Your task to perform on an android device: toggle notification dots Image 0: 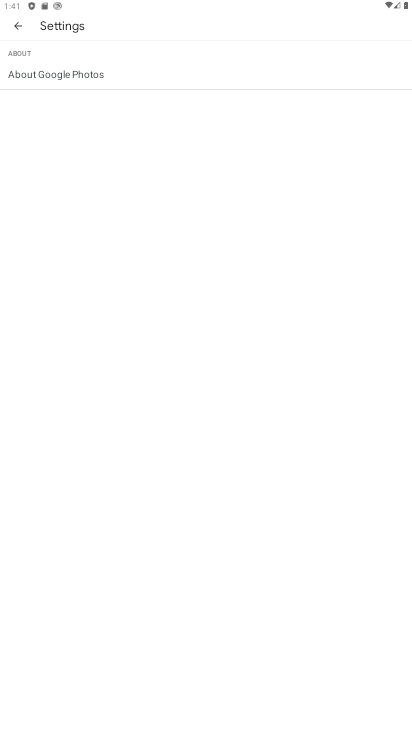
Step 0: press home button
Your task to perform on an android device: toggle notification dots Image 1: 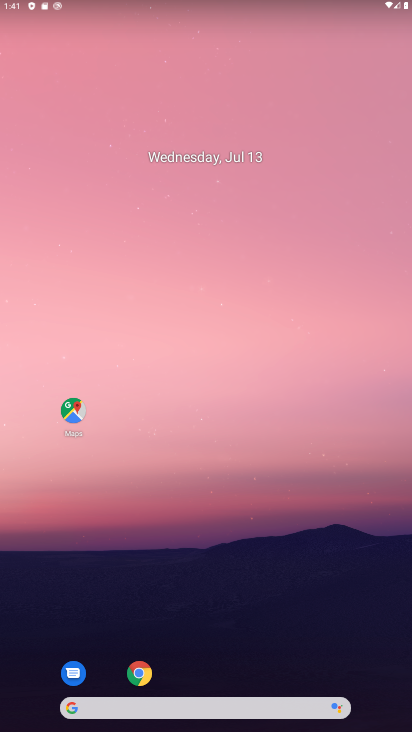
Step 1: drag from (219, 554) to (218, 32)
Your task to perform on an android device: toggle notification dots Image 2: 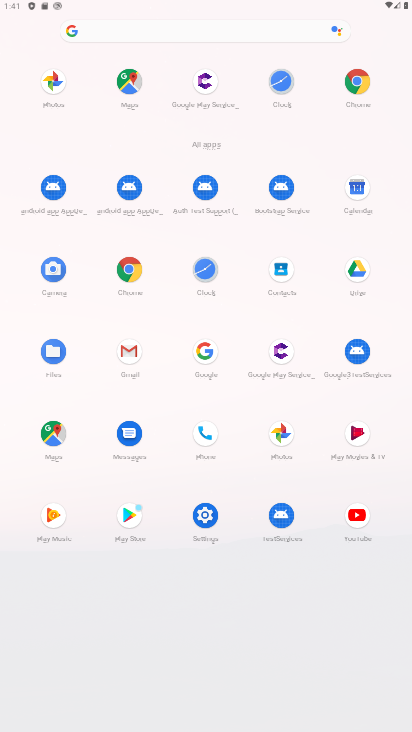
Step 2: click (205, 518)
Your task to perform on an android device: toggle notification dots Image 3: 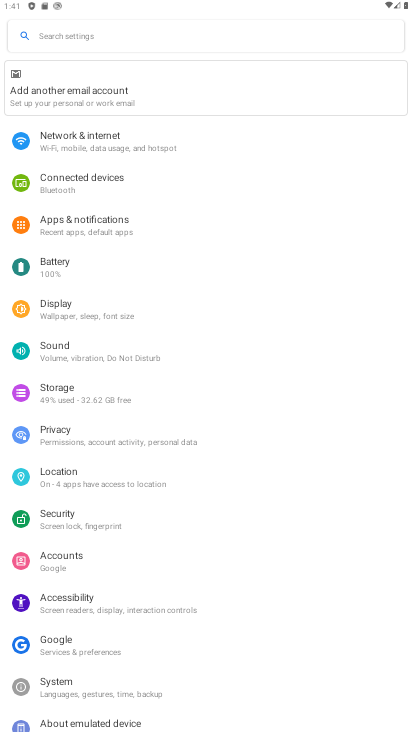
Step 3: click (86, 216)
Your task to perform on an android device: toggle notification dots Image 4: 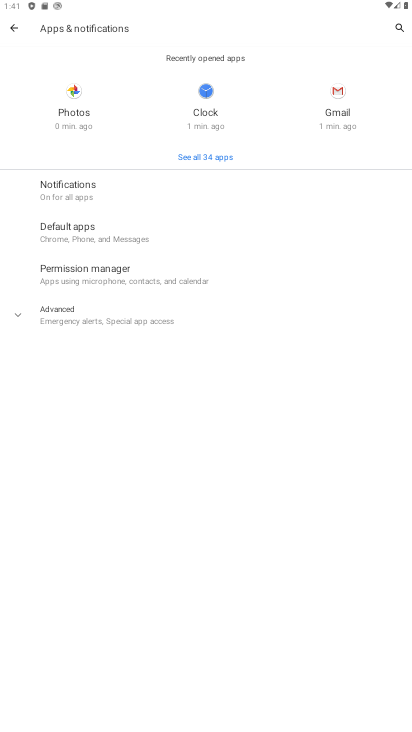
Step 4: click (49, 183)
Your task to perform on an android device: toggle notification dots Image 5: 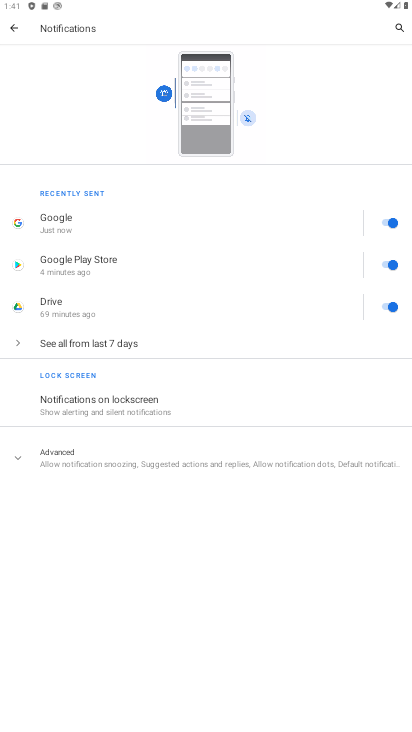
Step 5: click (17, 454)
Your task to perform on an android device: toggle notification dots Image 6: 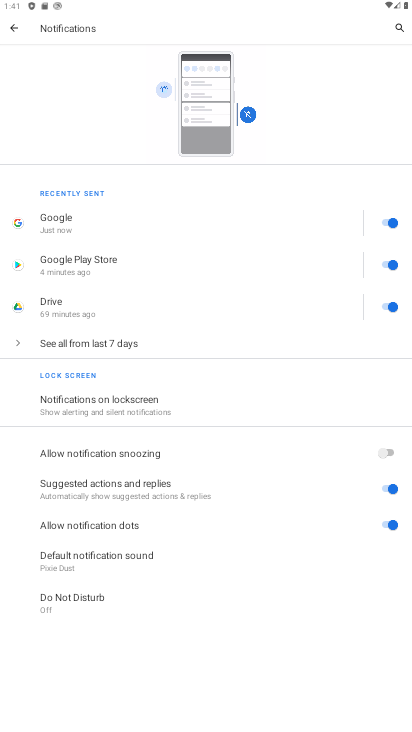
Step 6: click (387, 523)
Your task to perform on an android device: toggle notification dots Image 7: 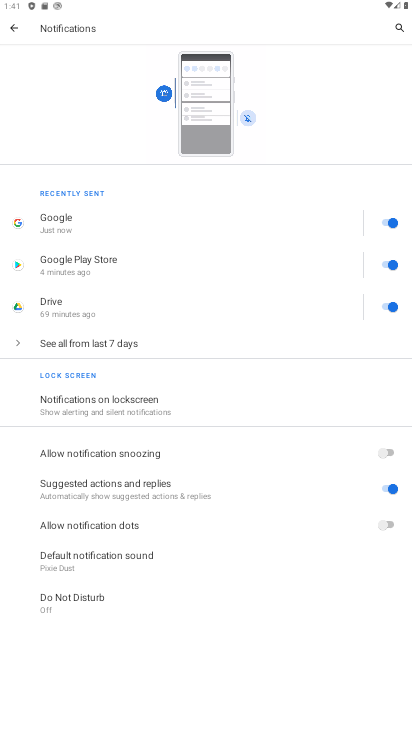
Step 7: task complete